Your task to perform on an android device: read, delete, or share a saved page in the chrome app Image 0: 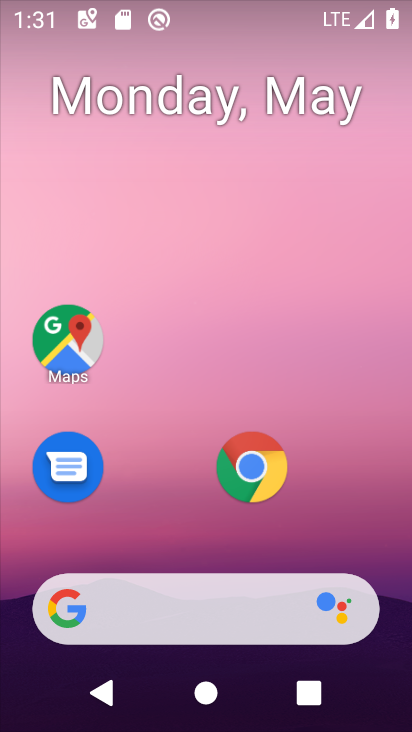
Step 0: drag from (170, 523) to (165, 239)
Your task to perform on an android device: read, delete, or share a saved page in the chrome app Image 1: 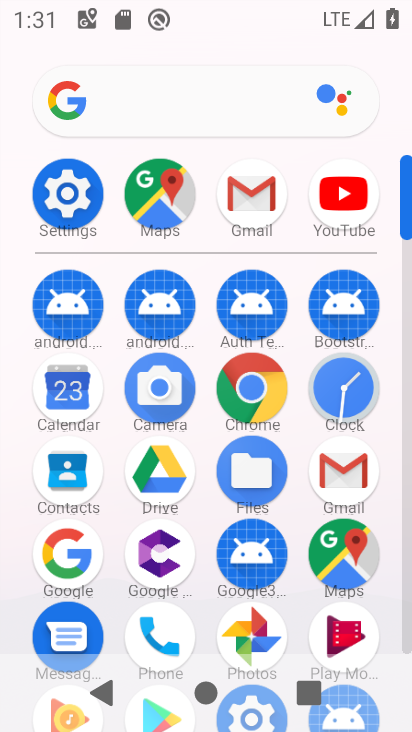
Step 1: click (251, 379)
Your task to perform on an android device: read, delete, or share a saved page in the chrome app Image 2: 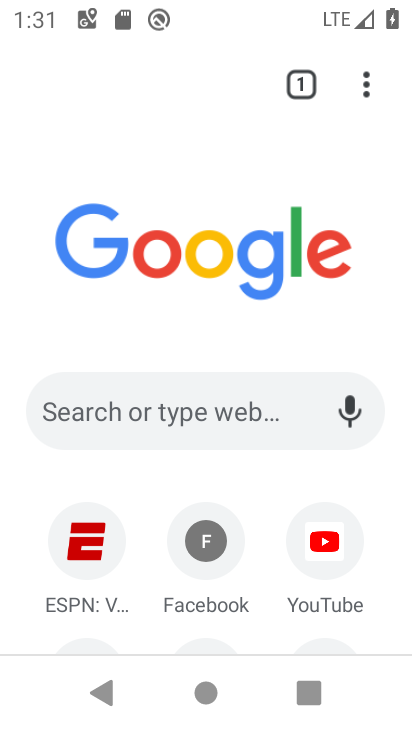
Step 2: click (361, 92)
Your task to perform on an android device: read, delete, or share a saved page in the chrome app Image 3: 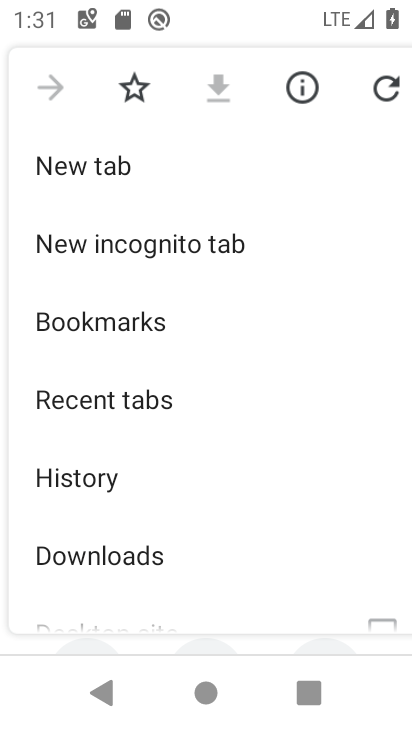
Step 3: click (135, 320)
Your task to perform on an android device: read, delete, or share a saved page in the chrome app Image 4: 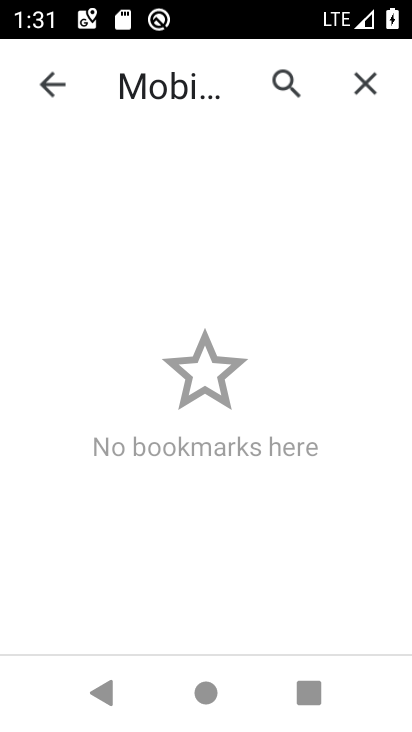
Step 4: click (361, 90)
Your task to perform on an android device: read, delete, or share a saved page in the chrome app Image 5: 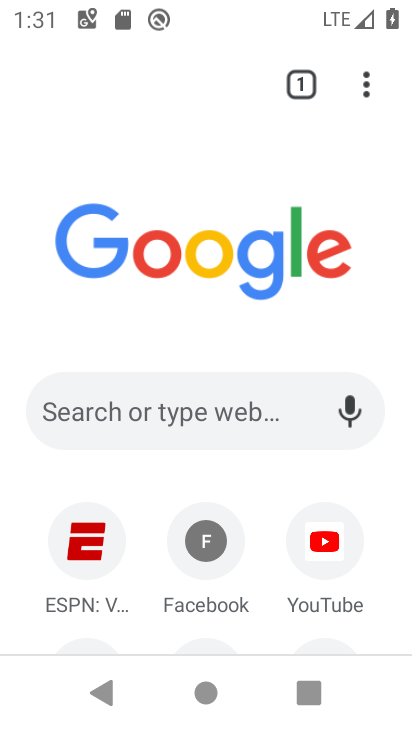
Step 5: click (374, 85)
Your task to perform on an android device: read, delete, or share a saved page in the chrome app Image 6: 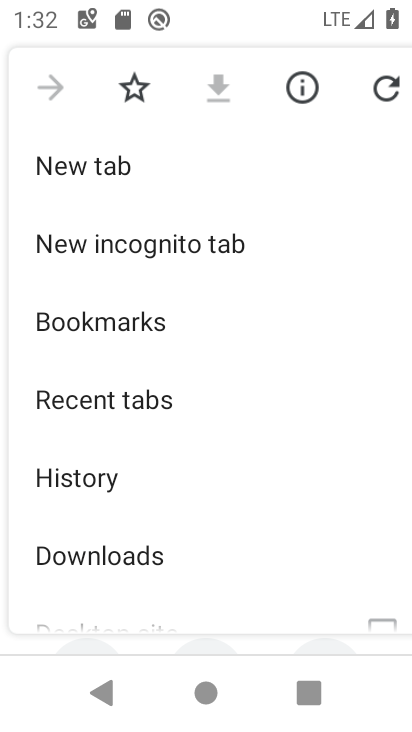
Step 6: drag from (118, 532) to (164, 222)
Your task to perform on an android device: read, delete, or share a saved page in the chrome app Image 7: 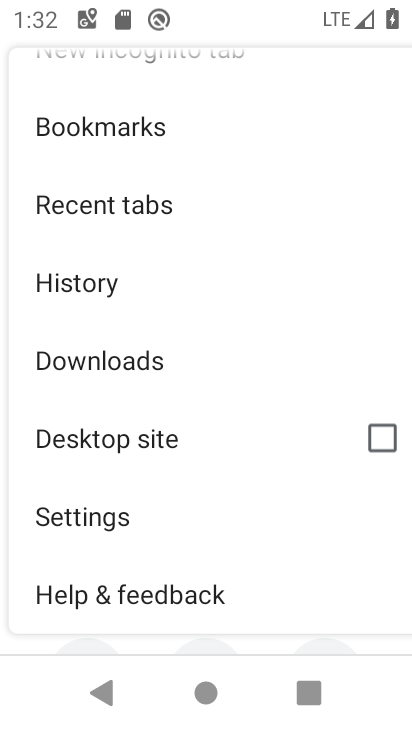
Step 7: drag from (183, 508) to (182, 204)
Your task to perform on an android device: read, delete, or share a saved page in the chrome app Image 8: 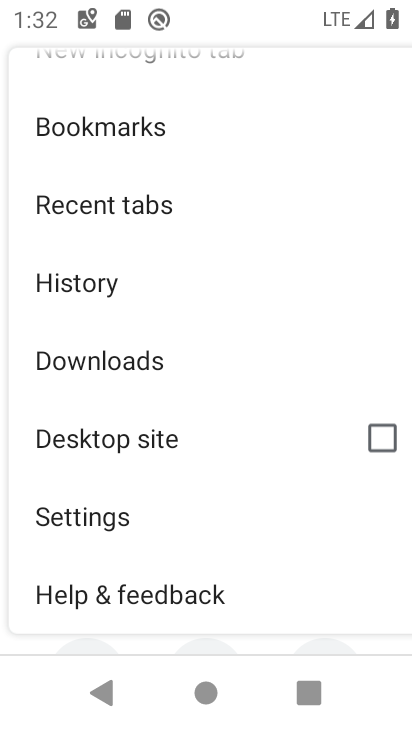
Step 8: drag from (211, 505) to (239, 295)
Your task to perform on an android device: read, delete, or share a saved page in the chrome app Image 9: 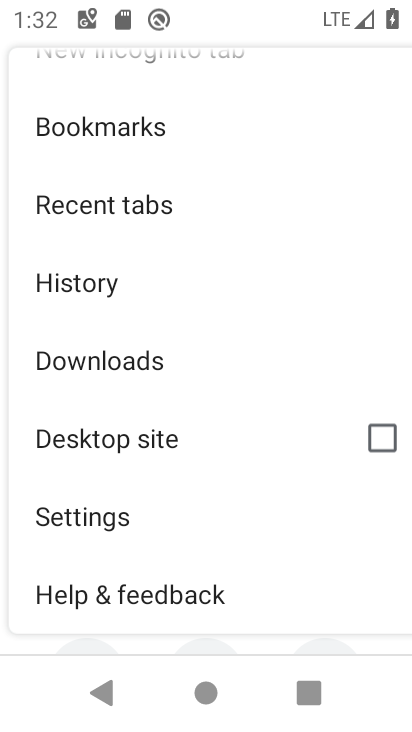
Step 9: drag from (226, 535) to (213, 428)
Your task to perform on an android device: read, delete, or share a saved page in the chrome app Image 10: 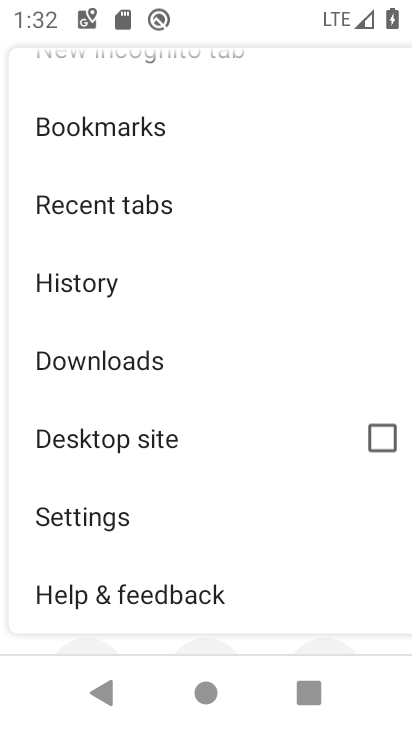
Step 10: drag from (155, 245) to (334, 720)
Your task to perform on an android device: read, delete, or share a saved page in the chrome app Image 11: 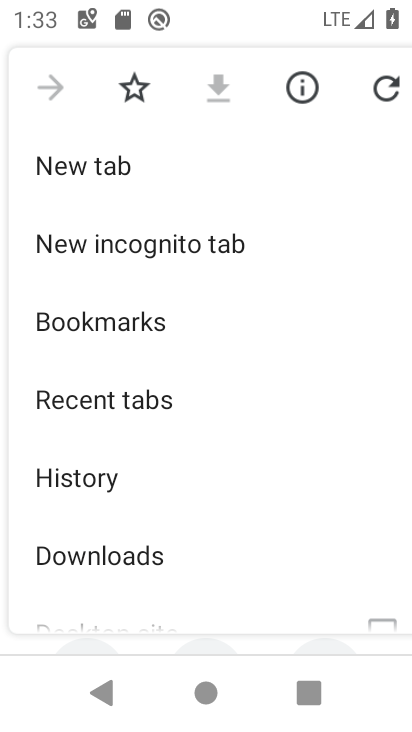
Step 11: drag from (192, 580) to (213, 158)
Your task to perform on an android device: read, delete, or share a saved page in the chrome app Image 12: 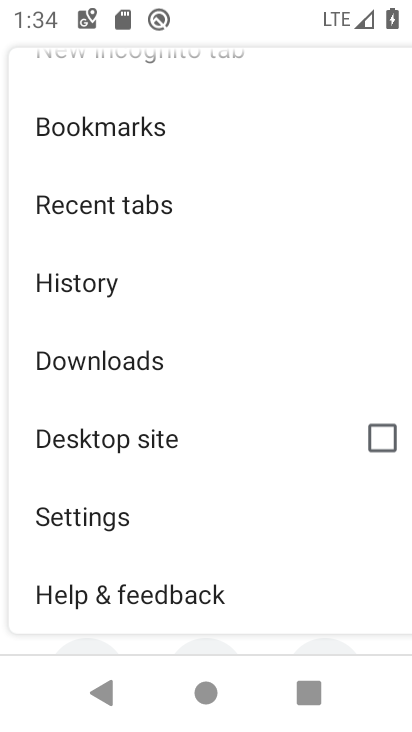
Step 12: drag from (151, 523) to (144, 234)
Your task to perform on an android device: read, delete, or share a saved page in the chrome app Image 13: 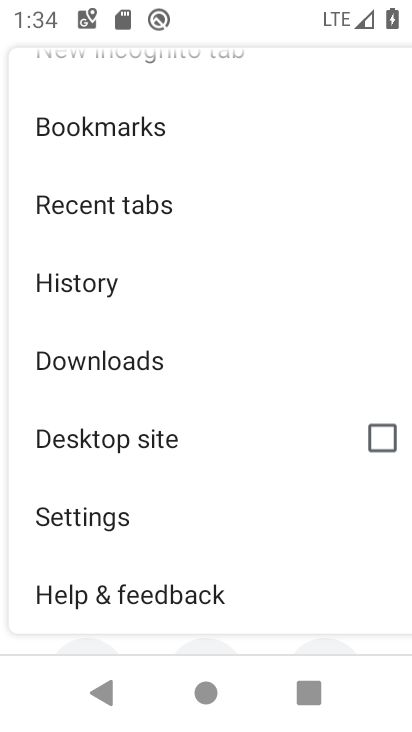
Step 13: drag from (148, 237) to (192, 623)
Your task to perform on an android device: read, delete, or share a saved page in the chrome app Image 14: 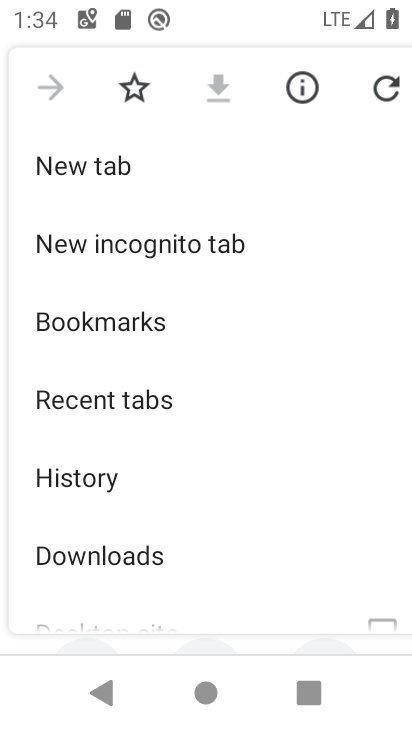
Step 14: click (119, 322)
Your task to perform on an android device: read, delete, or share a saved page in the chrome app Image 15: 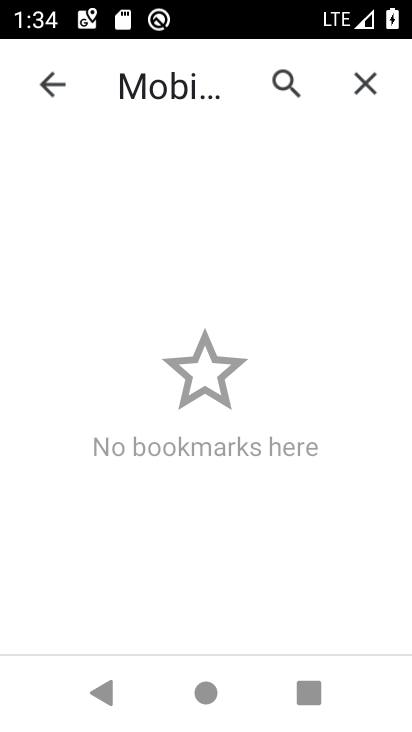
Step 15: task complete